Your task to perform on an android device: Open Google Maps and go to "Timeline" Image 0: 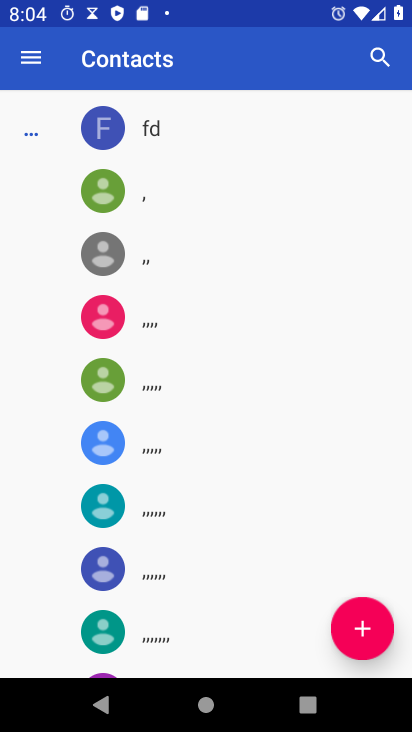
Step 0: press home button
Your task to perform on an android device: Open Google Maps and go to "Timeline" Image 1: 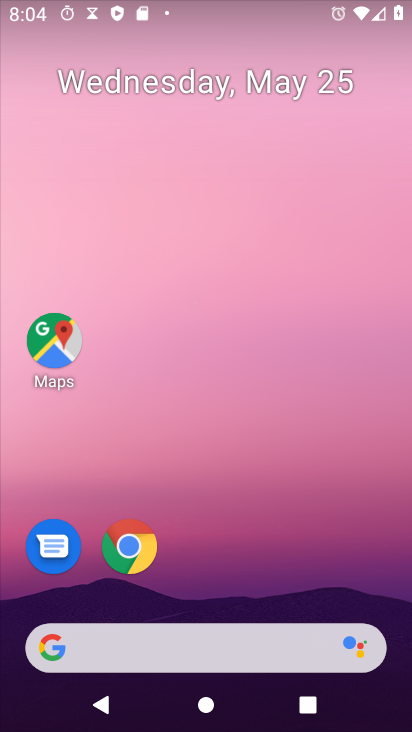
Step 1: click (55, 352)
Your task to perform on an android device: Open Google Maps and go to "Timeline" Image 2: 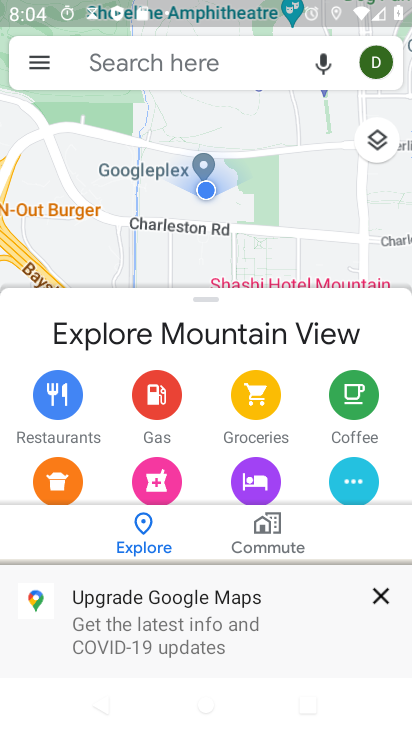
Step 2: click (64, 58)
Your task to perform on an android device: Open Google Maps and go to "Timeline" Image 3: 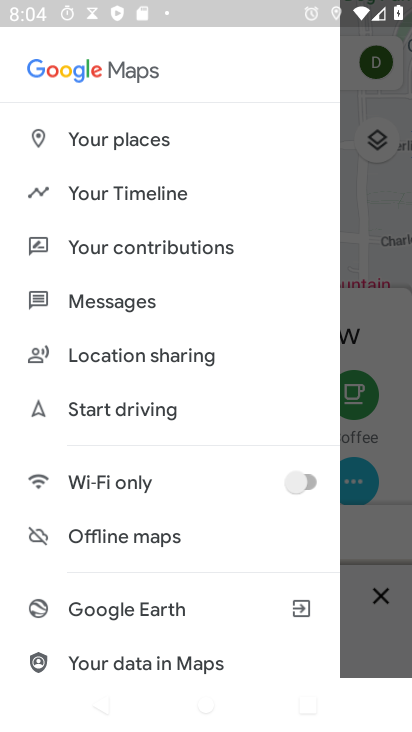
Step 3: click (161, 200)
Your task to perform on an android device: Open Google Maps and go to "Timeline" Image 4: 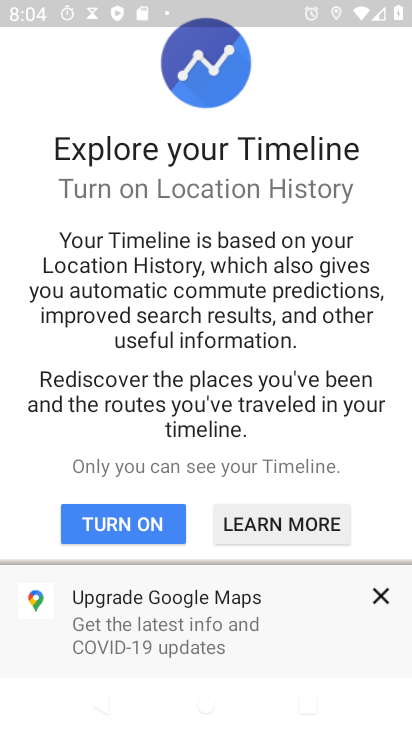
Step 4: drag from (236, 452) to (232, 89)
Your task to perform on an android device: Open Google Maps and go to "Timeline" Image 5: 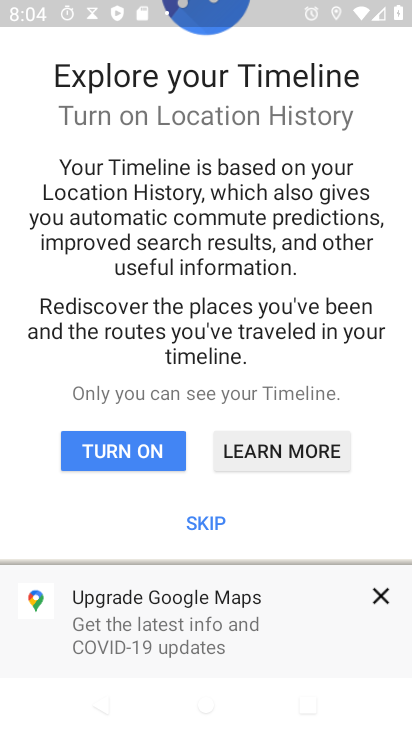
Step 5: click (193, 525)
Your task to perform on an android device: Open Google Maps and go to "Timeline" Image 6: 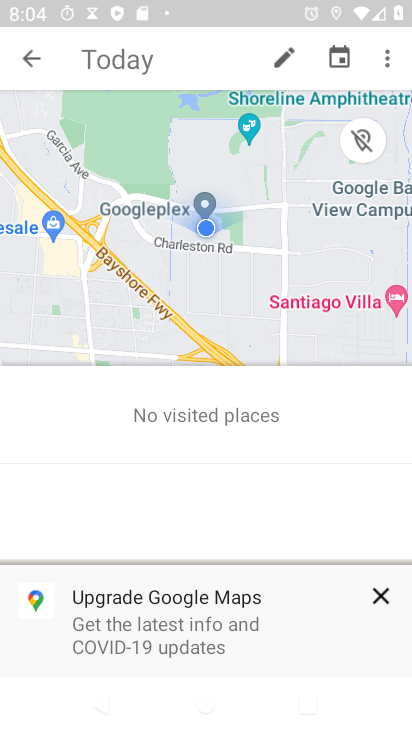
Step 6: task complete